Your task to perform on an android device: Search for seafood restaurants on Google Maps Image 0: 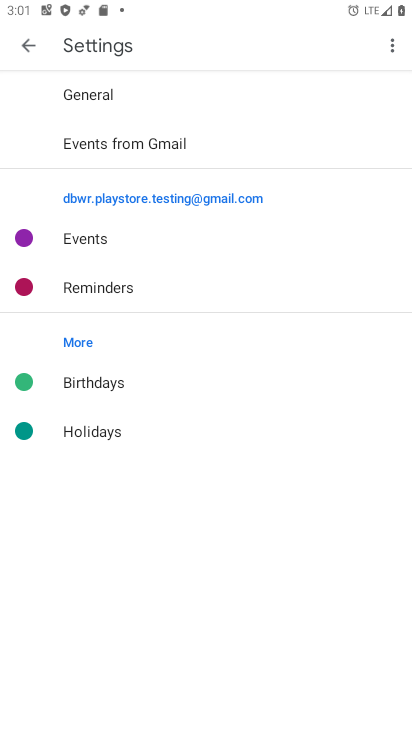
Step 0: press home button
Your task to perform on an android device: Search for seafood restaurants on Google Maps Image 1: 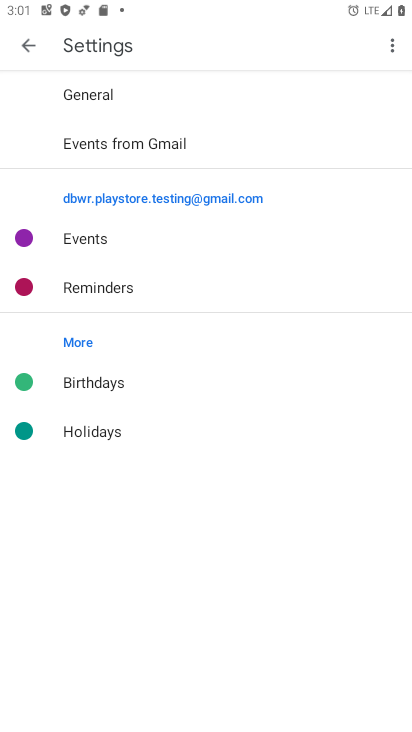
Step 1: press home button
Your task to perform on an android device: Search for seafood restaurants on Google Maps Image 2: 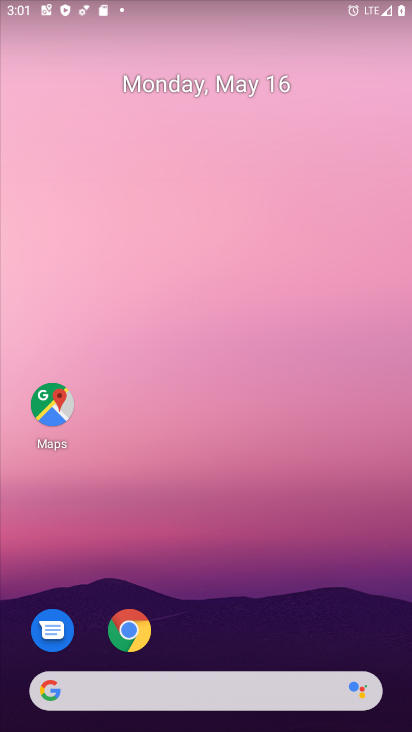
Step 2: click (51, 402)
Your task to perform on an android device: Search for seafood restaurants on Google Maps Image 3: 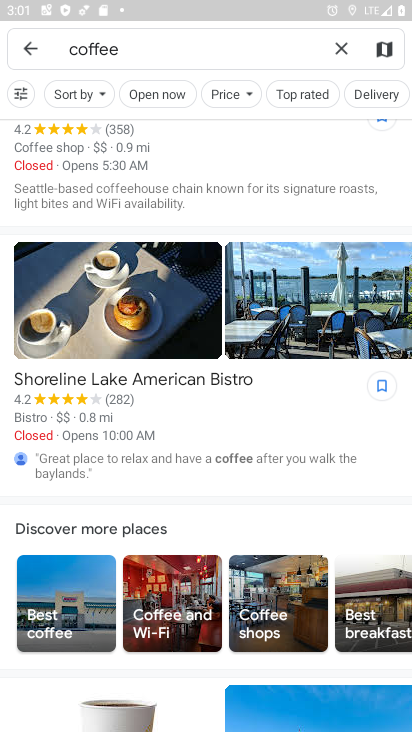
Step 3: click (344, 47)
Your task to perform on an android device: Search for seafood restaurants on Google Maps Image 4: 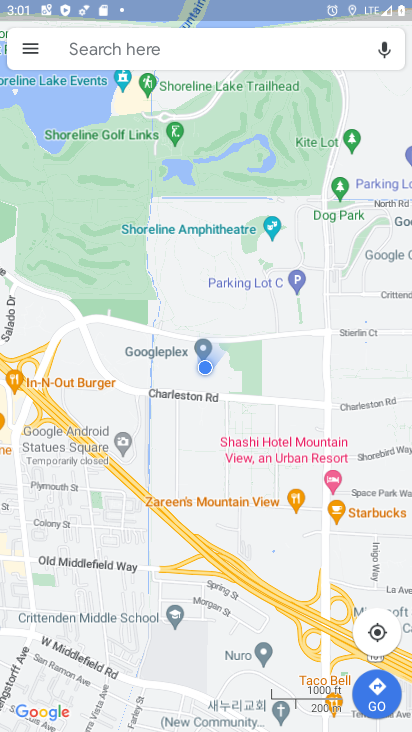
Step 4: click (158, 47)
Your task to perform on an android device: Search for seafood restaurants on Google Maps Image 5: 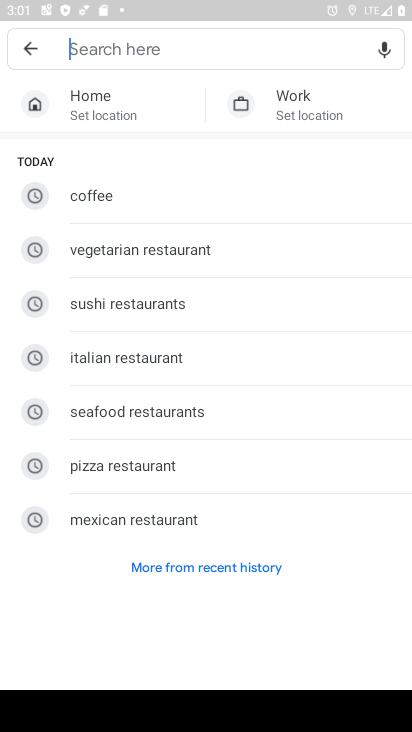
Step 5: type "seafood"
Your task to perform on an android device: Search for seafood restaurants on Google Maps Image 6: 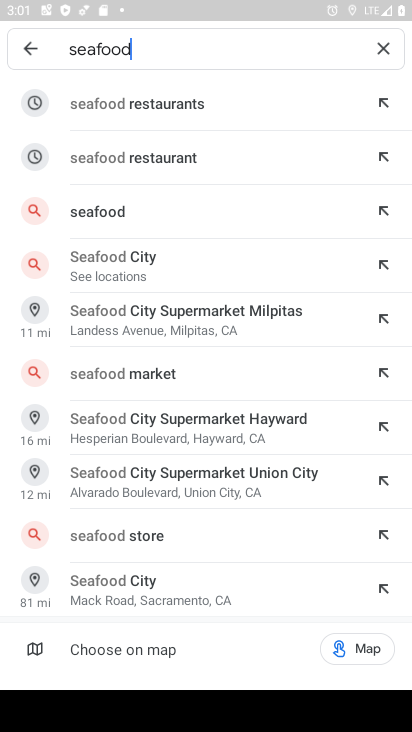
Step 6: click (206, 104)
Your task to perform on an android device: Search for seafood restaurants on Google Maps Image 7: 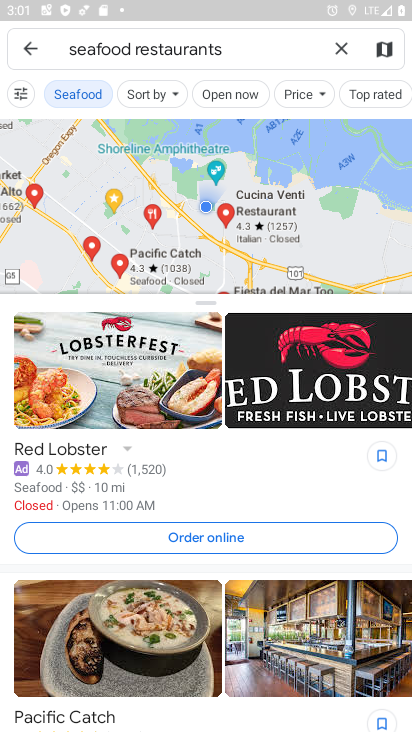
Step 7: task complete